Your task to perform on an android device: check storage Image 0: 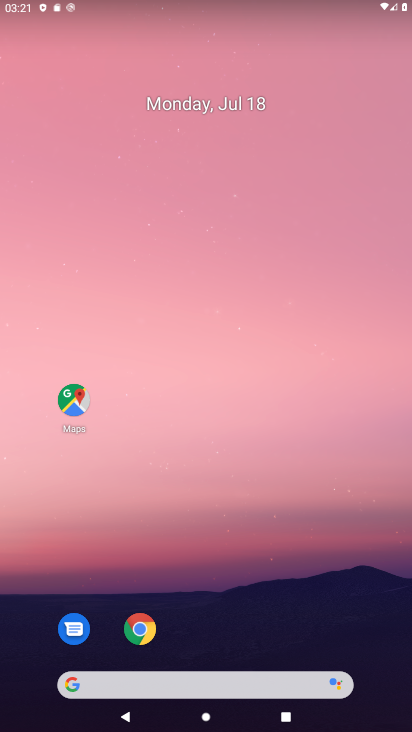
Step 0: drag from (319, 427) to (240, 8)
Your task to perform on an android device: check storage Image 1: 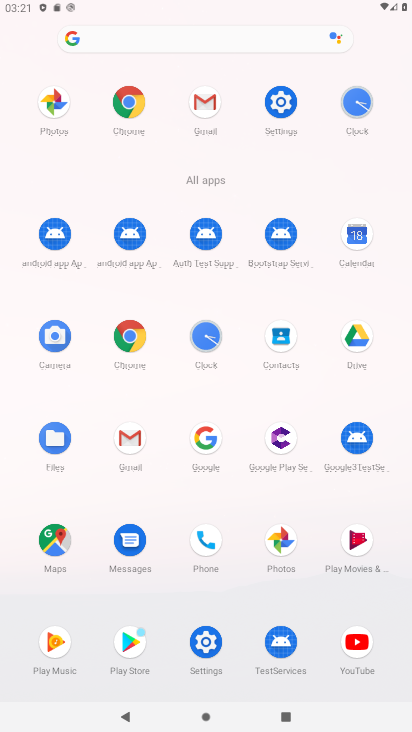
Step 1: click (277, 105)
Your task to perform on an android device: check storage Image 2: 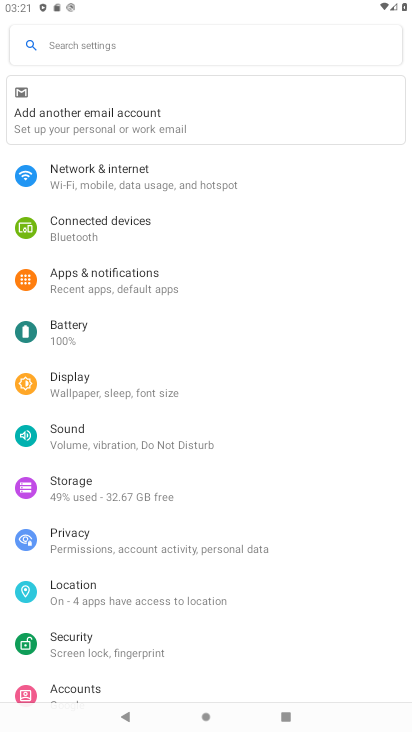
Step 2: click (34, 482)
Your task to perform on an android device: check storage Image 3: 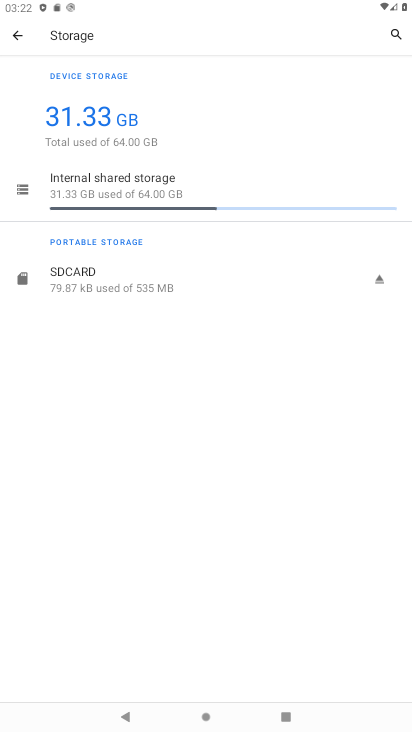
Step 3: task complete